Your task to perform on an android device: Go to sound settings Image 0: 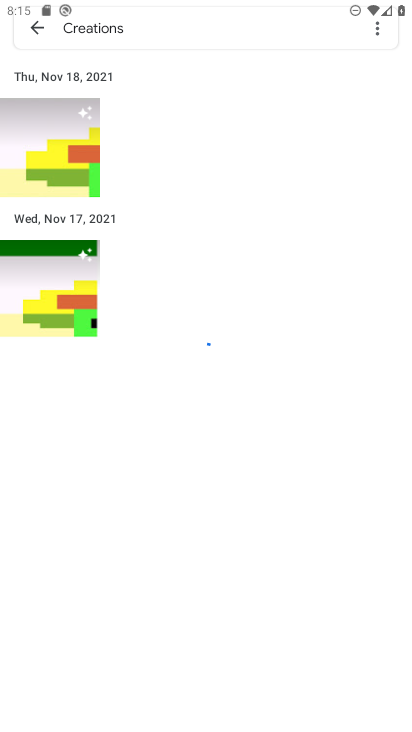
Step 0: press home button
Your task to perform on an android device: Go to sound settings Image 1: 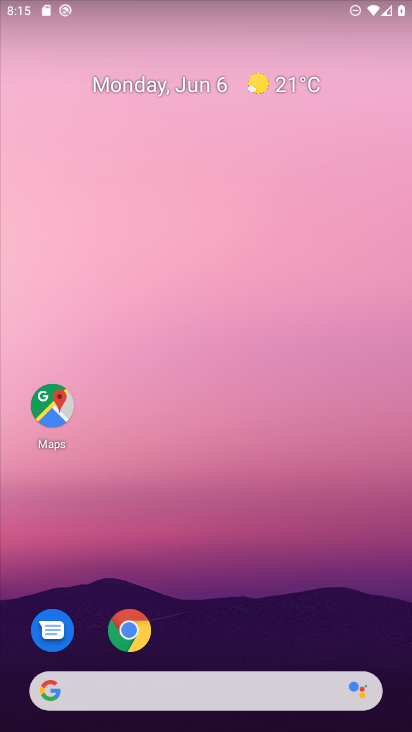
Step 1: drag from (187, 669) to (311, 101)
Your task to perform on an android device: Go to sound settings Image 2: 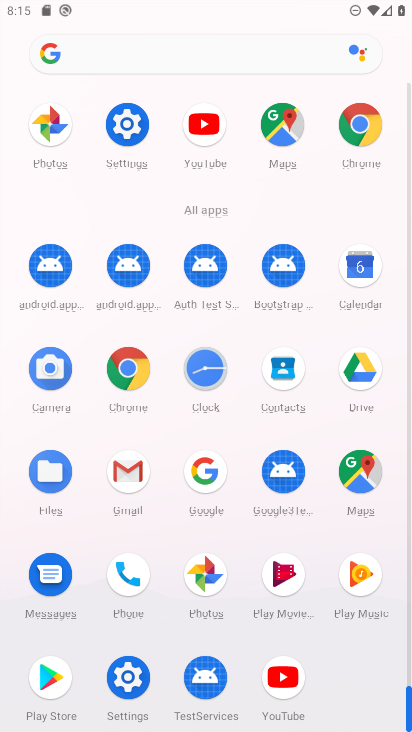
Step 2: click (140, 680)
Your task to perform on an android device: Go to sound settings Image 3: 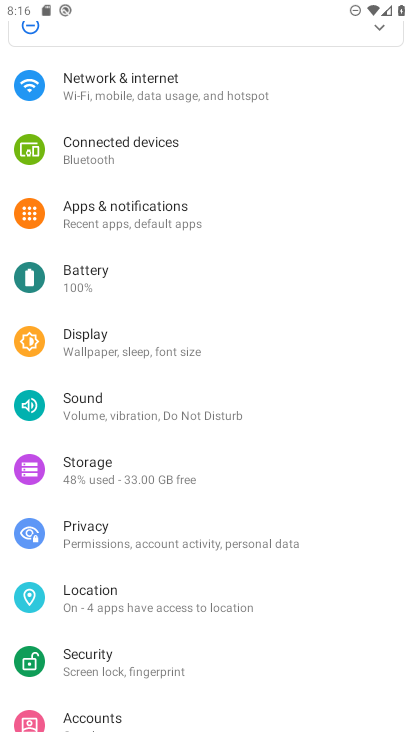
Step 3: click (131, 407)
Your task to perform on an android device: Go to sound settings Image 4: 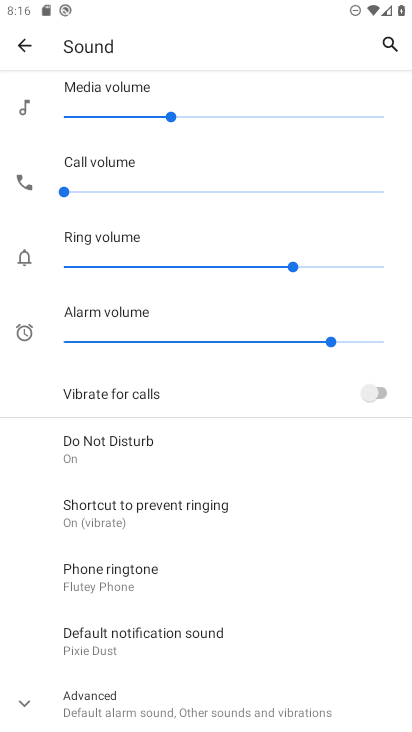
Step 4: task complete